Your task to perform on an android device: Go to wifi settings Image 0: 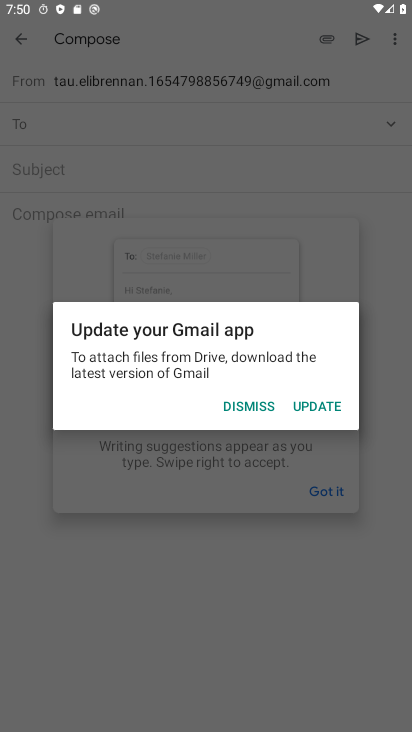
Step 0: press home button
Your task to perform on an android device: Go to wifi settings Image 1: 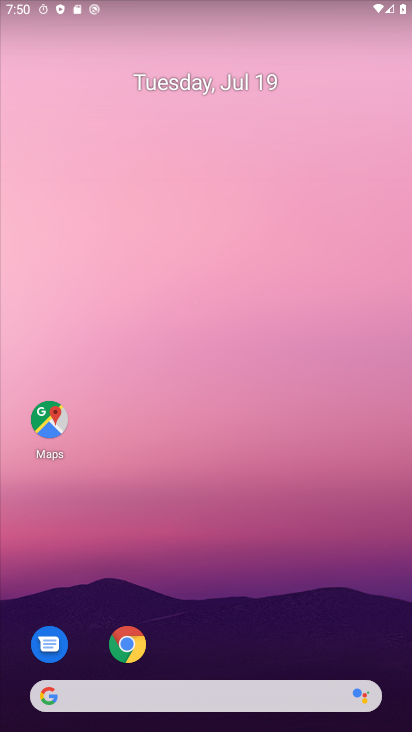
Step 1: drag from (93, 490) to (264, 200)
Your task to perform on an android device: Go to wifi settings Image 2: 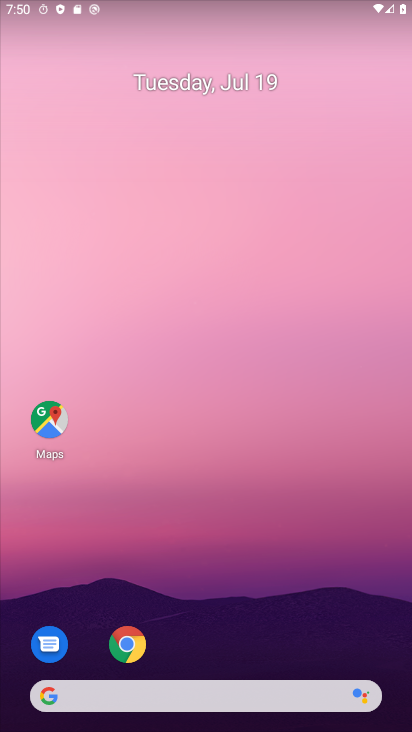
Step 2: drag from (36, 601) to (319, 33)
Your task to perform on an android device: Go to wifi settings Image 3: 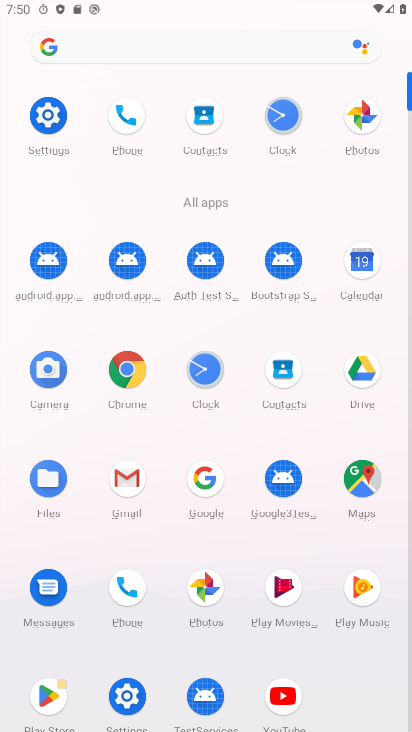
Step 3: click (132, 701)
Your task to perform on an android device: Go to wifi settings Image 4: 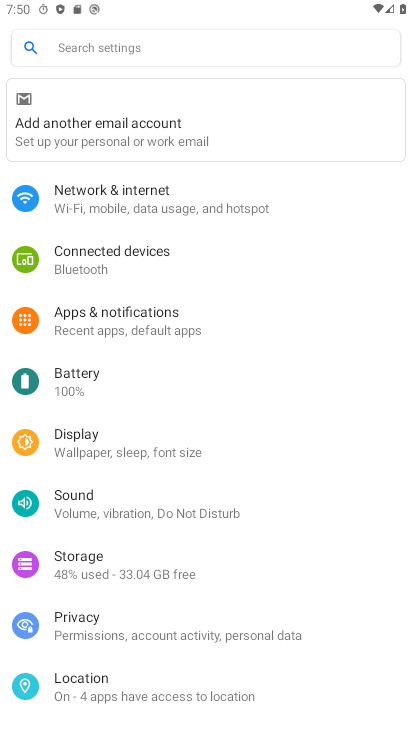
Step 4: click (151, 192)
Your task to perform on an android device: Go to wifi settings Image 5: 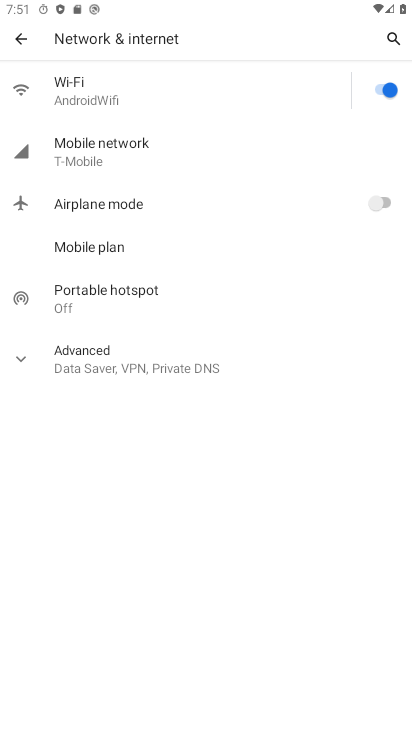
Step 5: task complete